Your task to perform on an android device: Open the calendar app, open the side menu, and click the "Day" option Image 0: 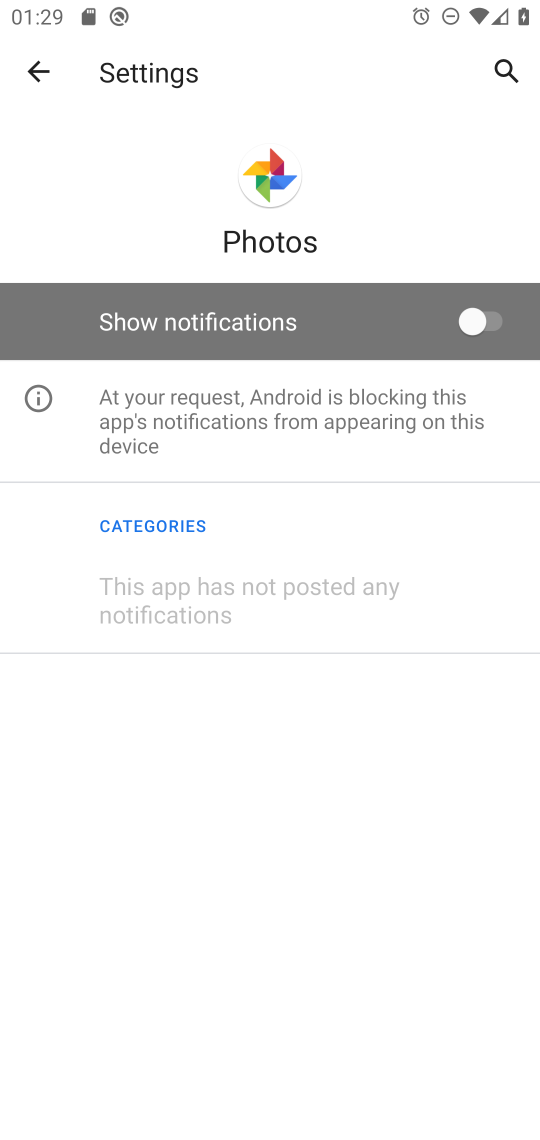
Step 0: press home button
Your task to perform on an android device: Open the calendar app, open the side menu, and click the "Day" option Image 1: 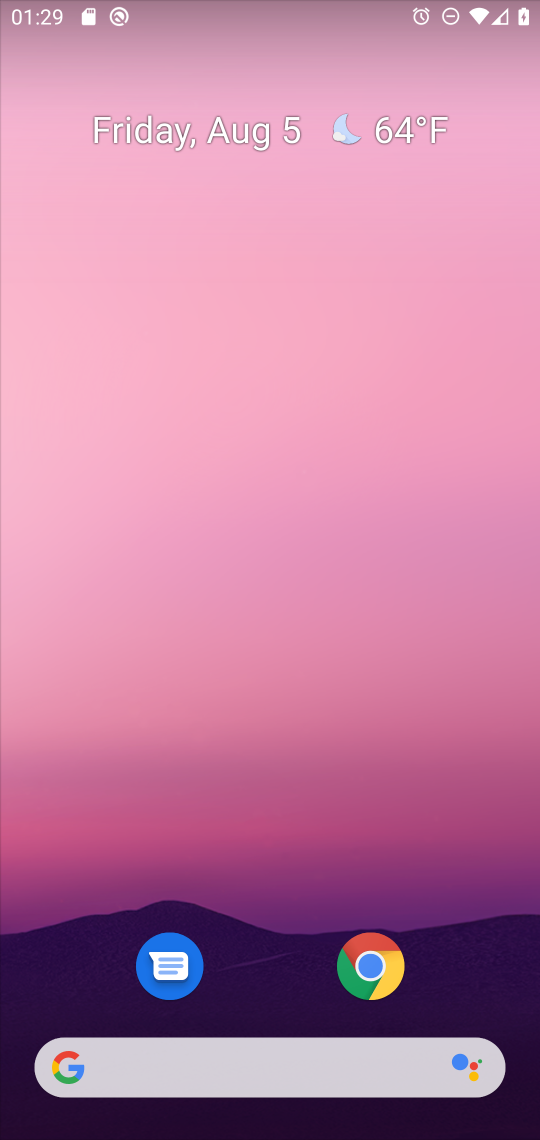
Step 1: drag from (242, 973) to (306, 0)
Your task to perform on an android device: Open the calendar app, open the side menu, and click the "Day" option Image 2: 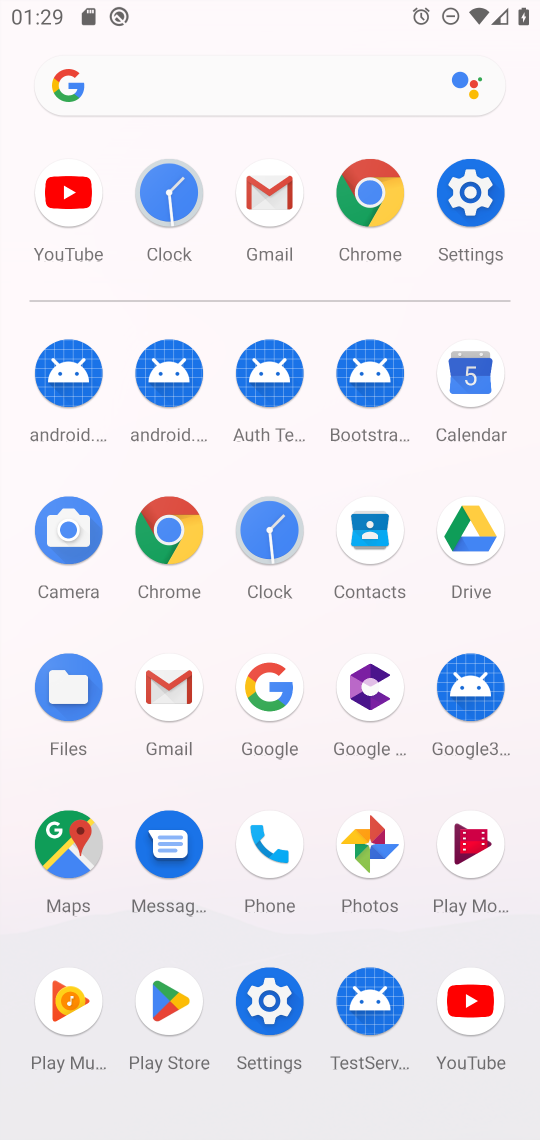
Step 2: click (467, 376)
Your task to perform on an android device: Open the calendar app, open the side menu, and click the "Day" option Image 3: 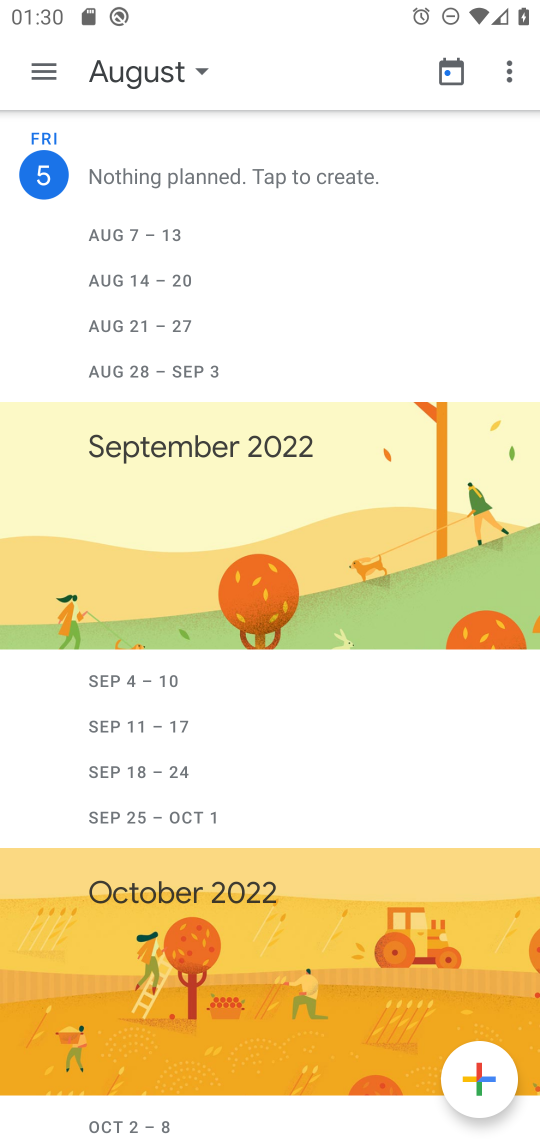
Step 3: click (46, 71)
Your task to perform on an android device: Open the calendar app, open the side menu, and click the "Day" option Image 4: 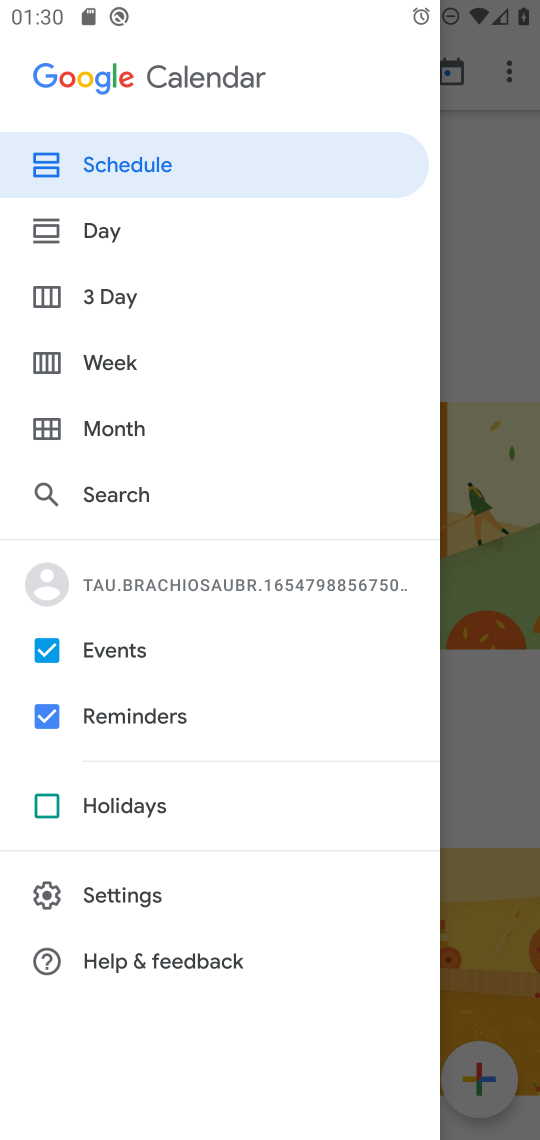
Step 4: click (51, 230)
Your task to perform on an android device: Open the calendar app, open the side menu, and click the "Day" option Image 5: 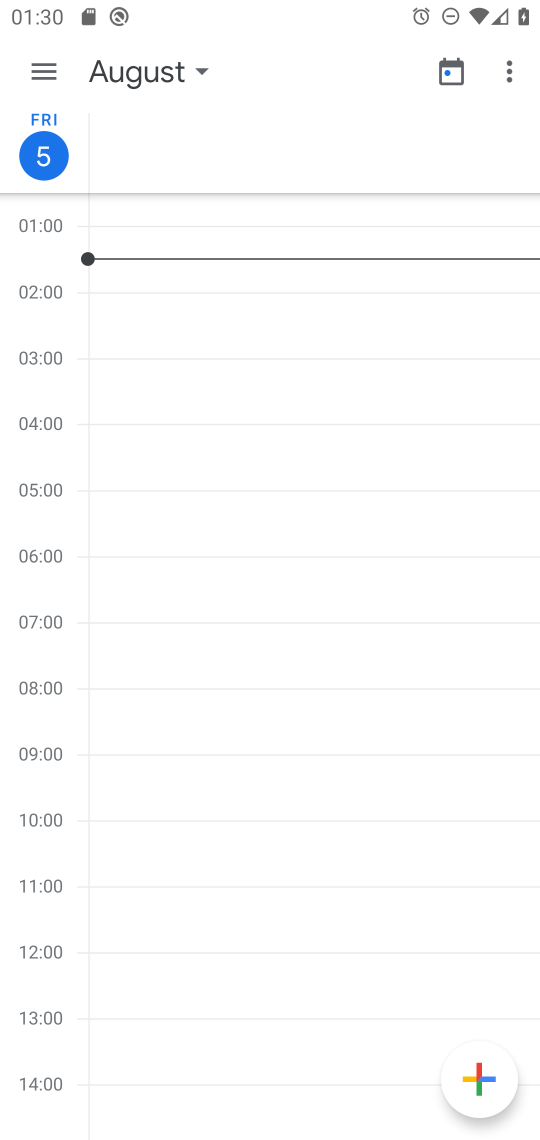
Step 5: task complete